Your task to perform on an android device: What's the weather going to be tomorrow? Image 0: 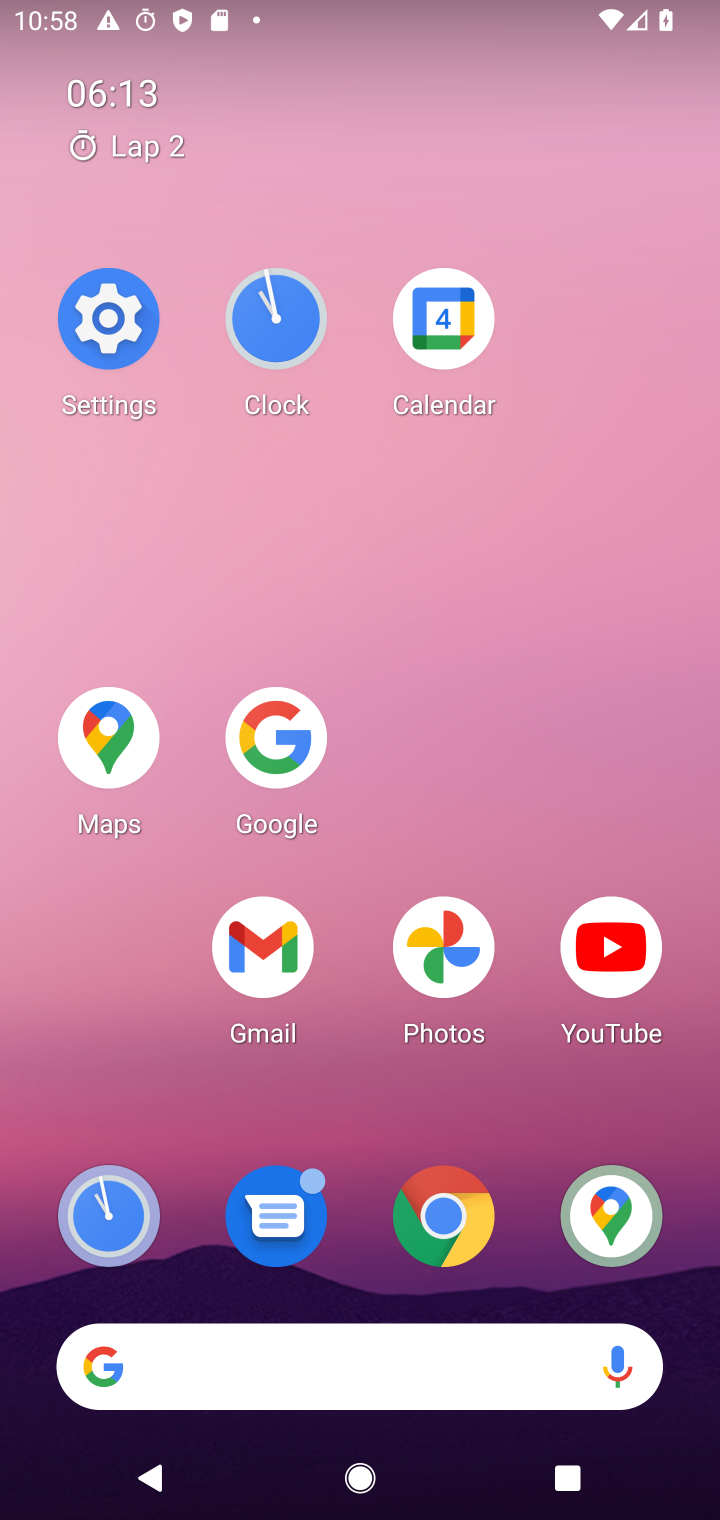
Step 0: click (275, 745)
Your task to perform on an android device: What's the weather going to be tomorrow? Image 1: 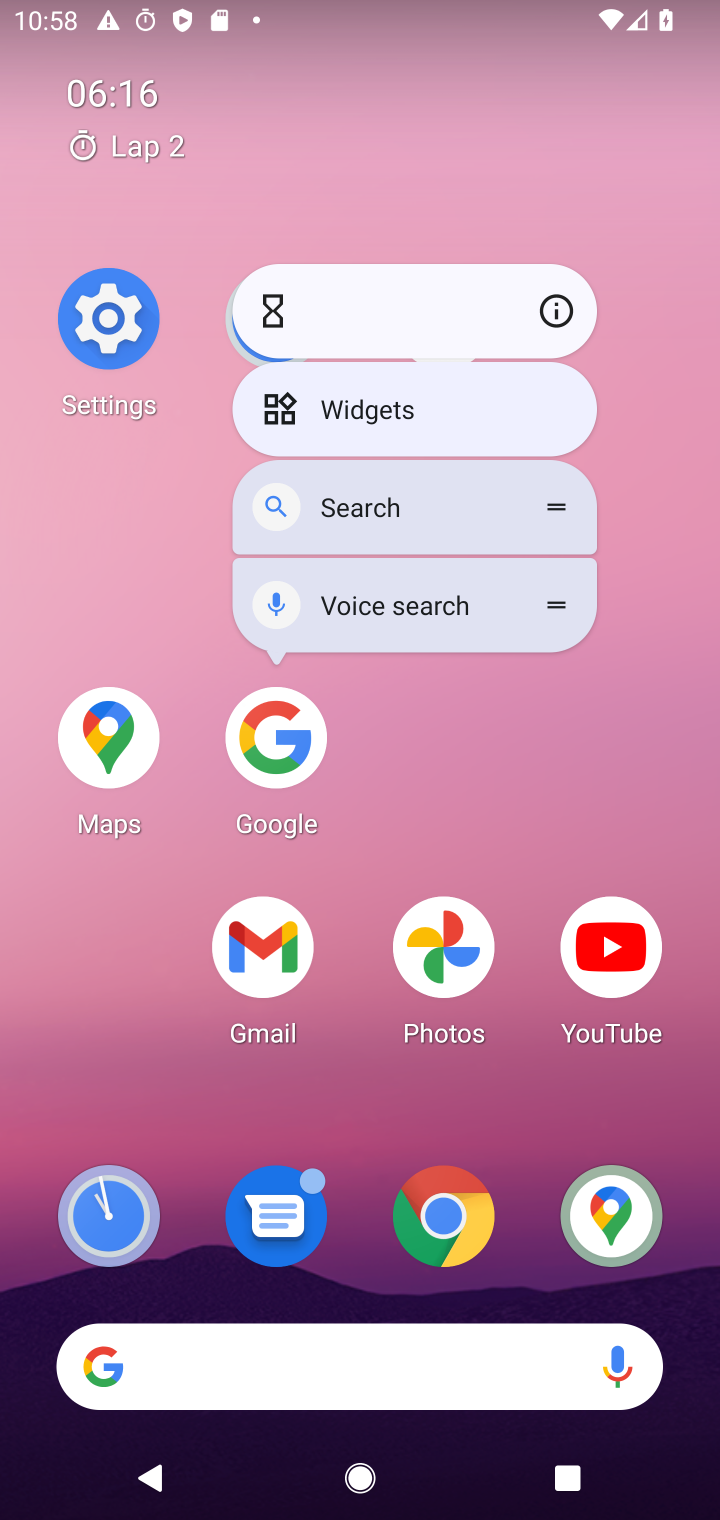
Step 1: click (304, 750)
Your task to perform on an android device: What's the weather going to be tomorrow? Image 2: 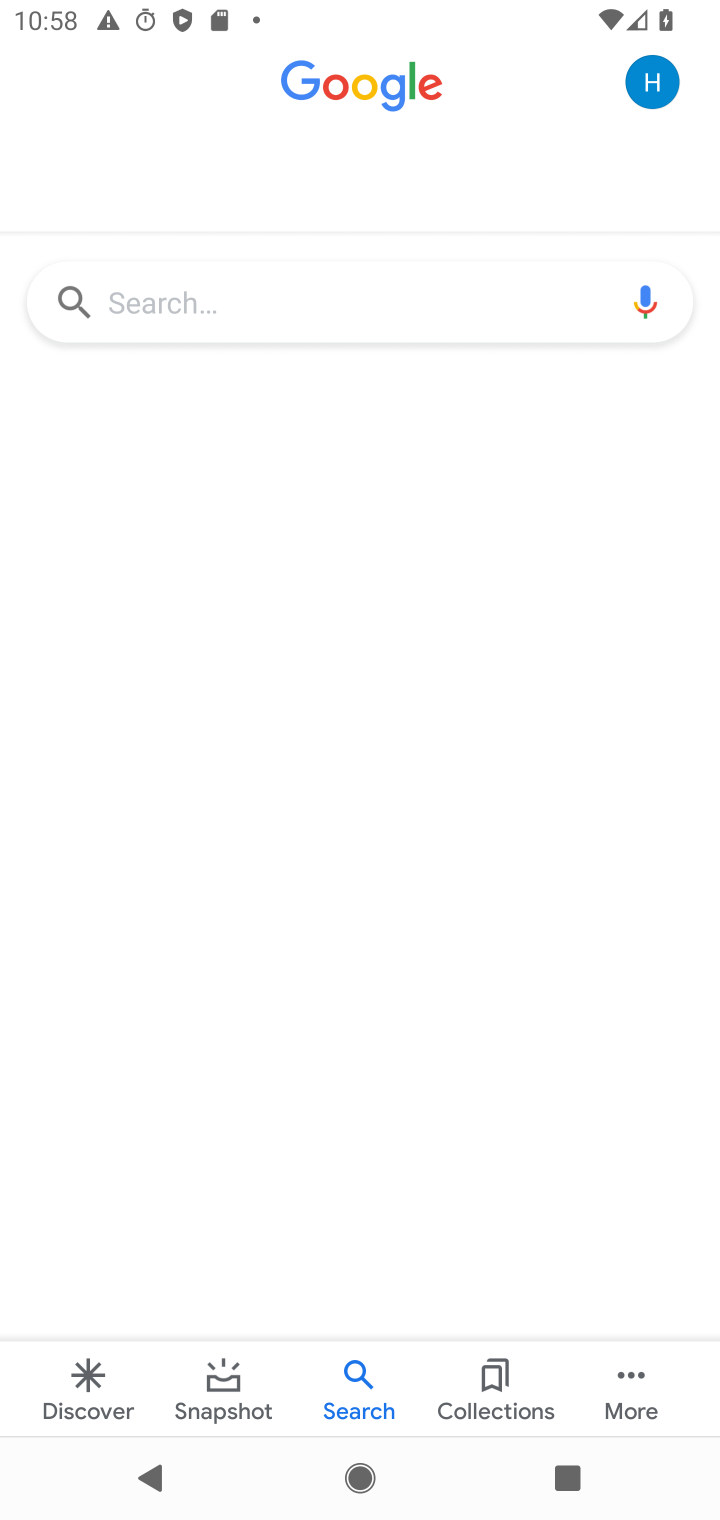
Step 2: click (410, 313)
Your task to perform on an android device: What's the weather going to be tomorrow? Image 3: 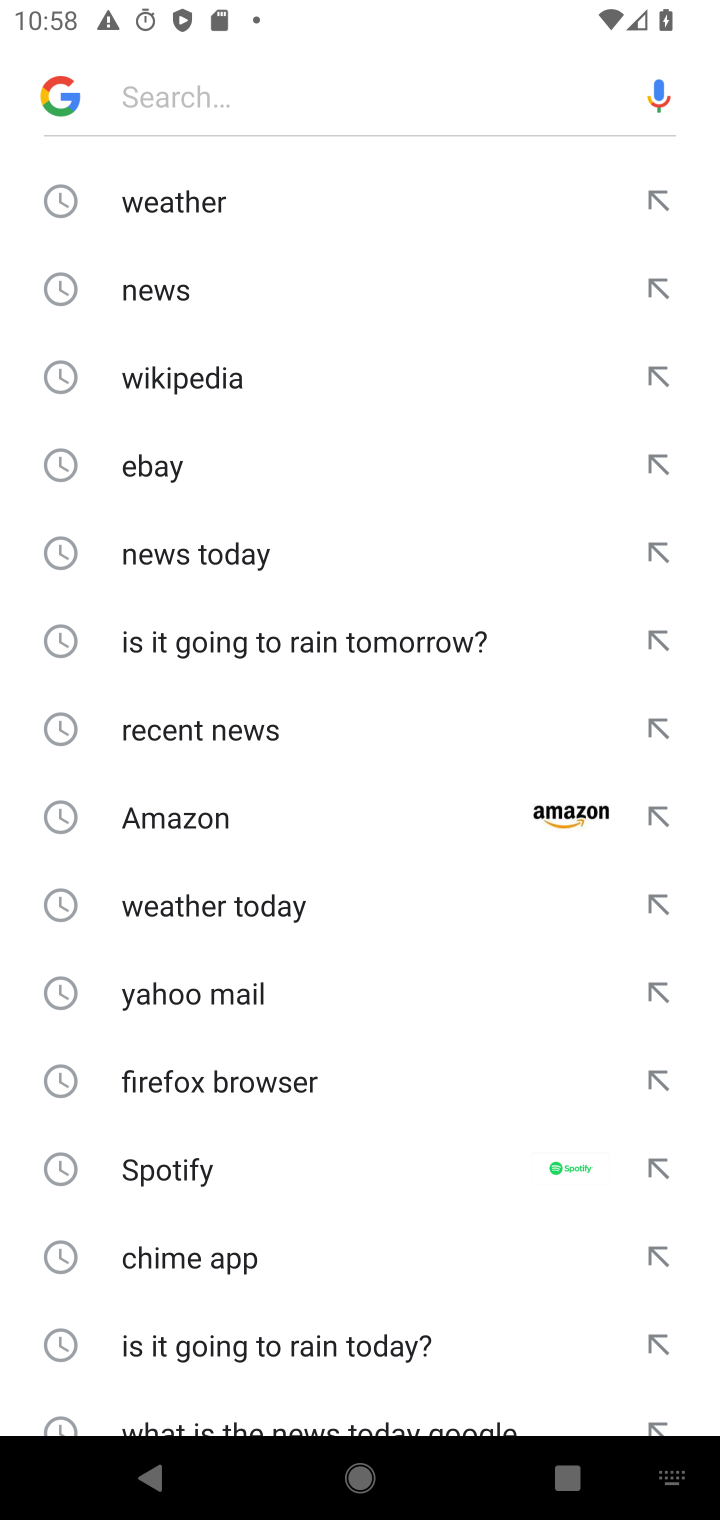
Step 3: click (220, 186)
Your task to perform on an android device: What's the weather going to be tomorrow? Image 4: 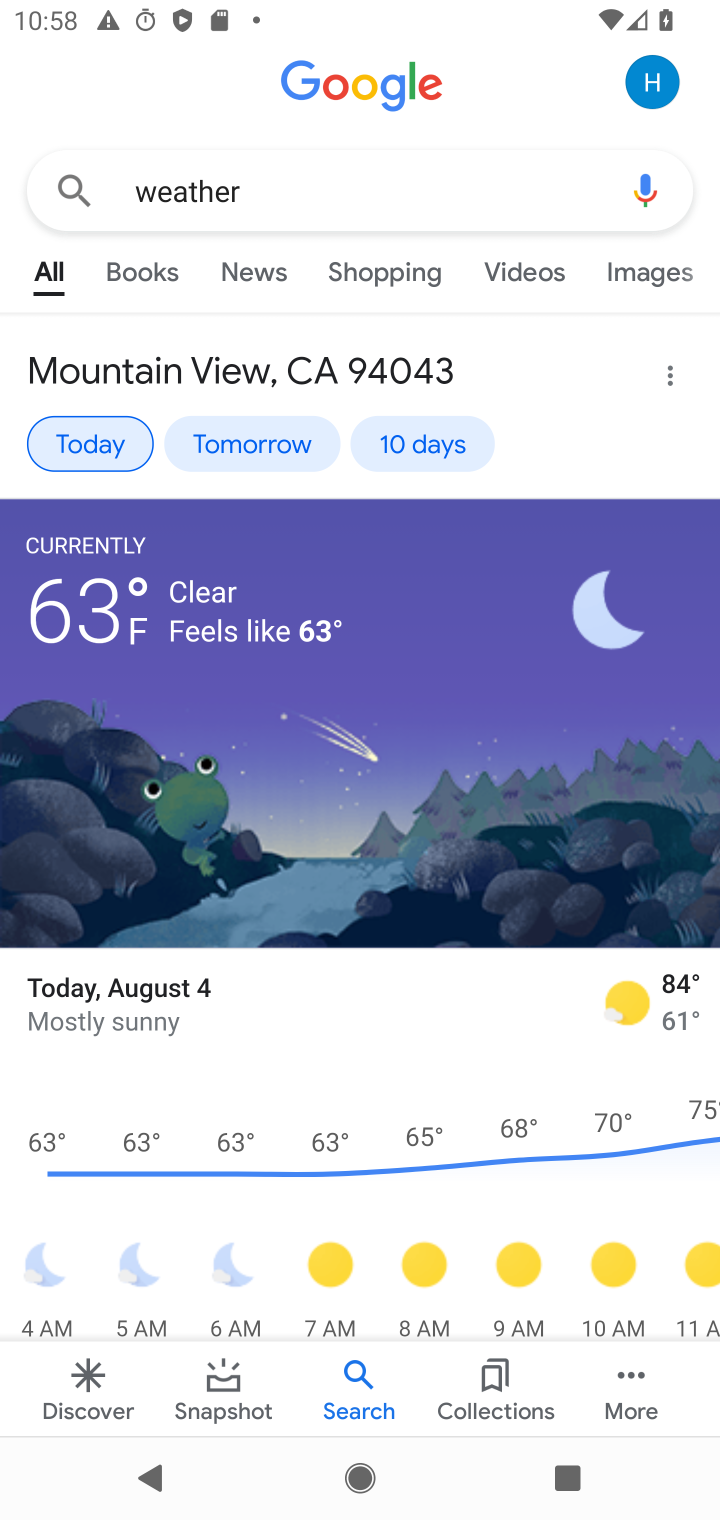
Step 4: click (283, 460)
Your task to perform on an android device: What's the weather going to be tomorrow? Image 5: 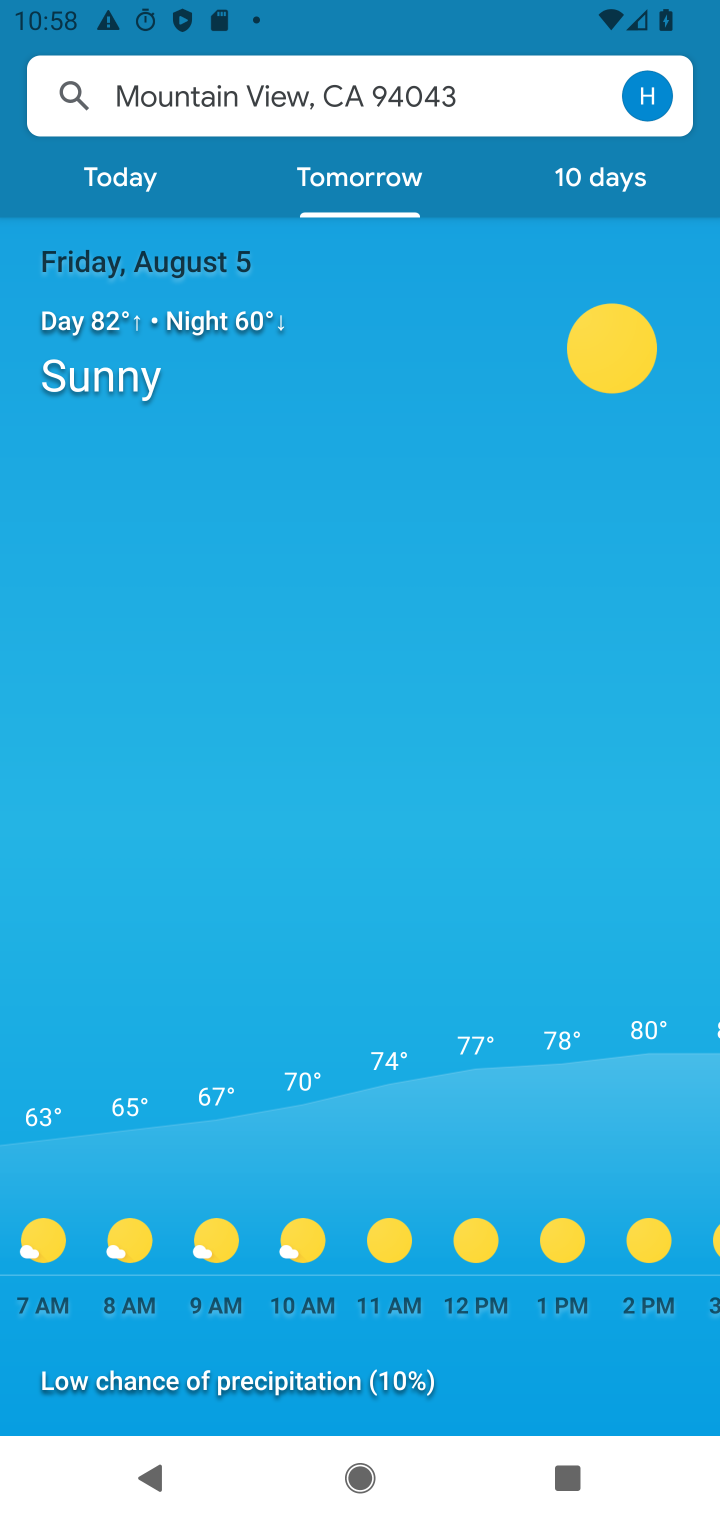
Step 5: task complete